Your task to perform on an android device: Search for Italian restaurants on Maps Image 0: 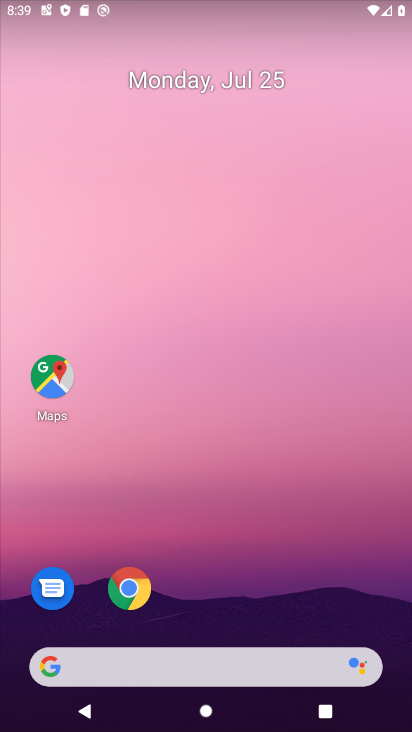
Step 0: click (58, 387)
Your task to perform on an android device: Search for Italian restaurants on Maps Image 1: 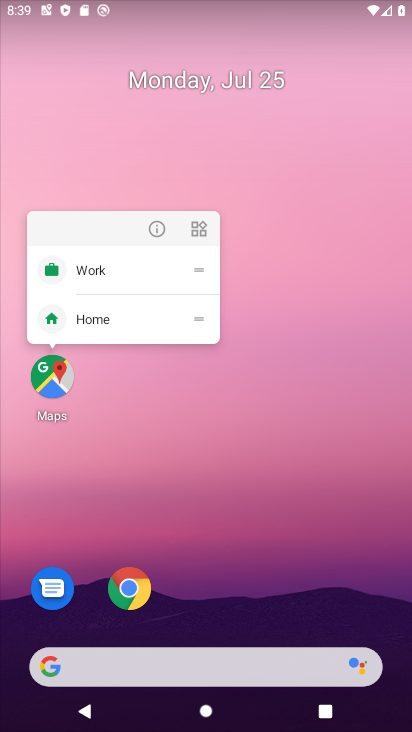
Step 1: click (58, 387)
Your task to perform on an android device: Search for Italian restaurants on Maps Image 2: 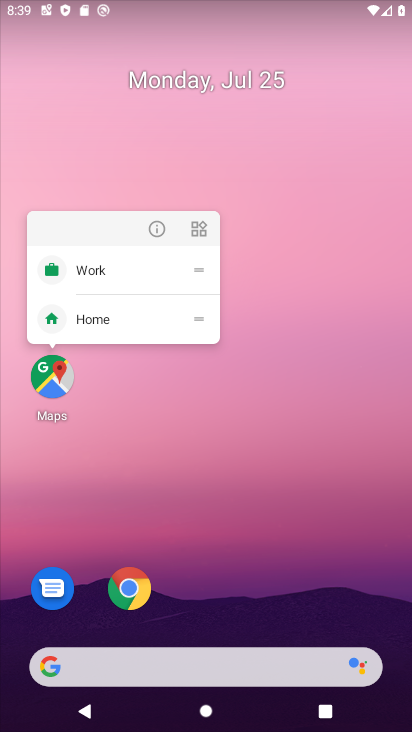
Step 2: drag from (240, 680) to (197, 525)
Your task to perform on an android device: Search for Italian restaurants on Maps Image 3: 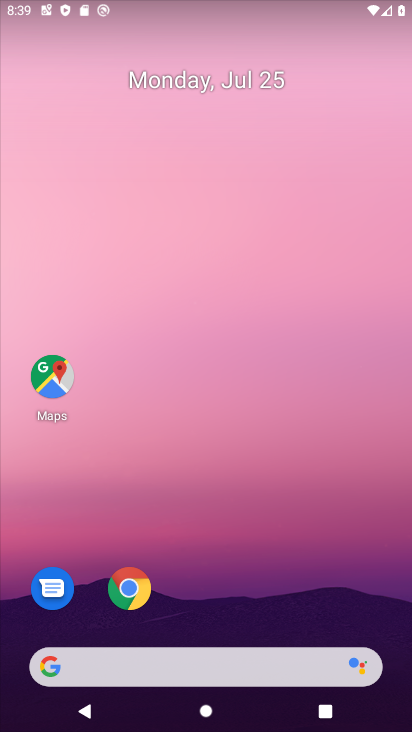
Step 3: click (47, 378)
Your task to perform on an android device: Search for Italian restaurants on Maps Image 4: 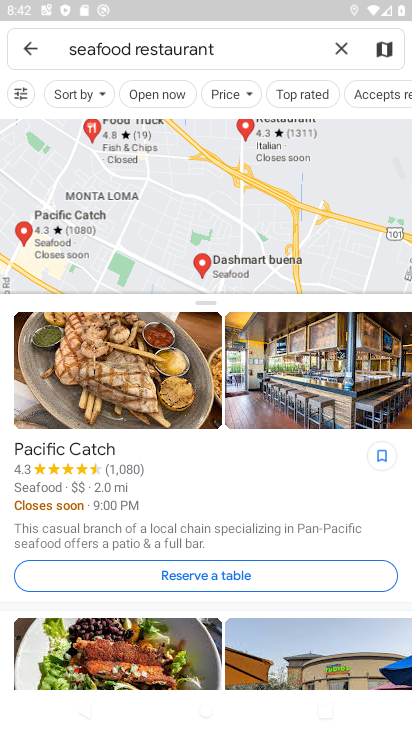
Step 4: click (341, 50)
Your task to perform on an android device: Search for Italian restaurants on Maps Image 5: 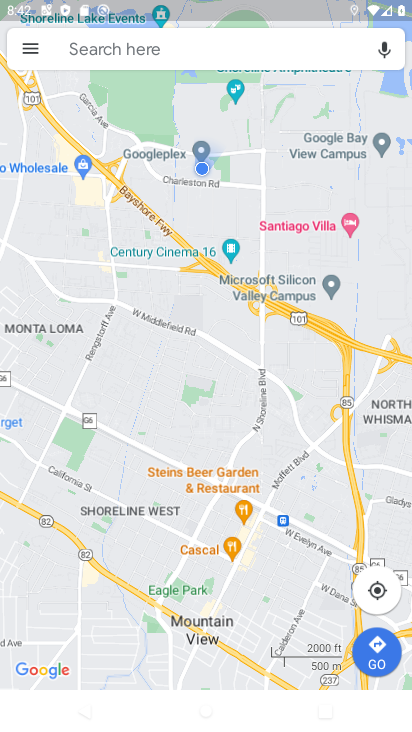
Step 5: click (249, 45)
Your task to perform on an android device: Search for Italian restaurants on Maps Image 6: 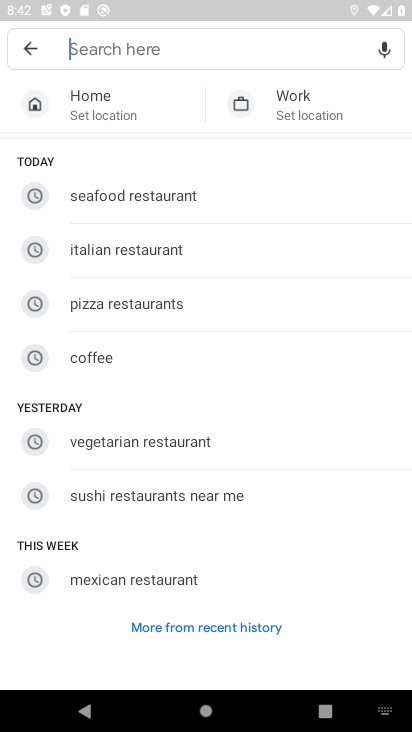
Step 6: click (145, 254)
Your task to perform on an android device: Search for Italian restaurants on Maps Image 7: 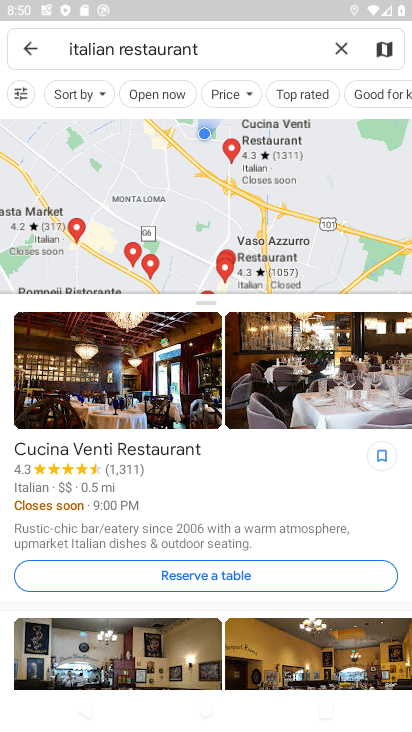
Step 7: task complete